Your task to perform on an android device: Go to Android settings Image 0: 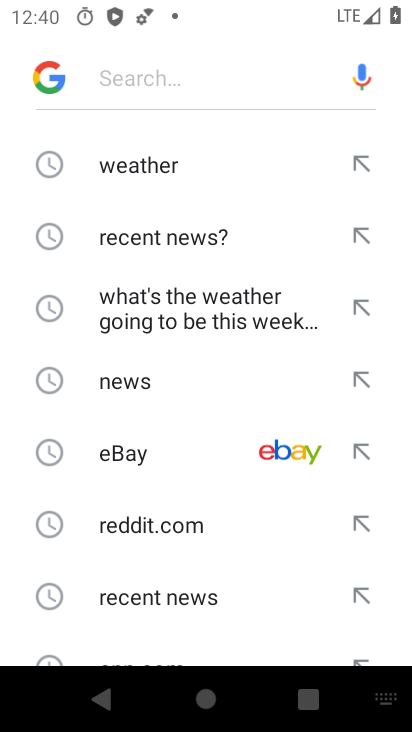
Step 0: press home button
Your task to perform on an android device: Go to Android settings Image 1: 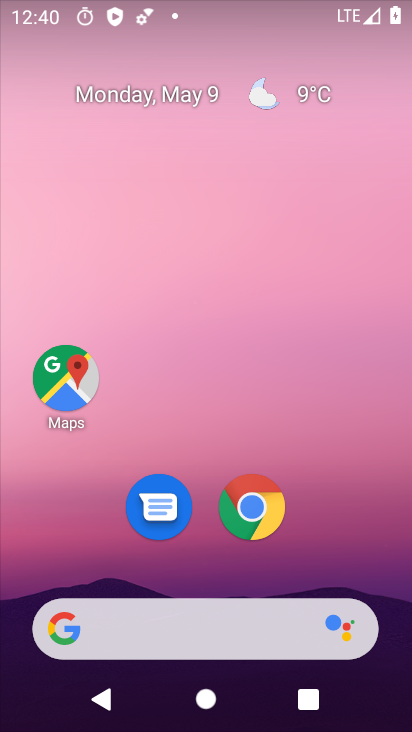
Step 1: drag from (229, 726) to (223, 160)
Your task to perform on an android device: Go to Android settings Image 2: 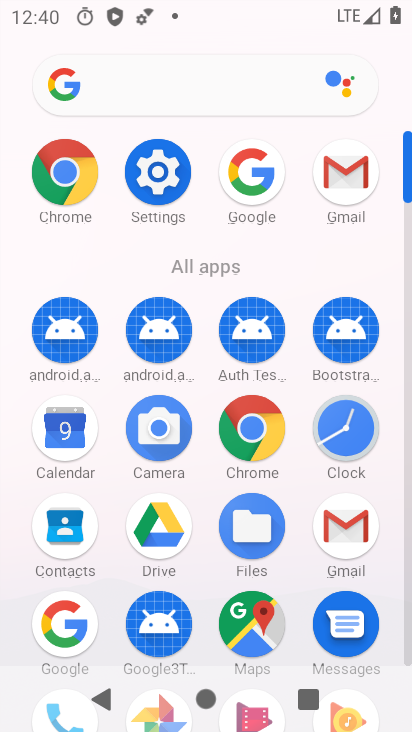
Step 2: click (155, 167)
Your task to perform on an android device: Go to Android settings Image 3: 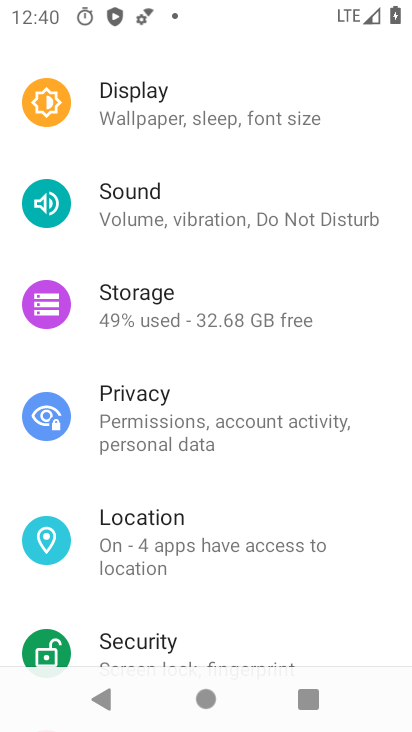
Step 3: task complete